Your task to perform on an android device: Go to accessibility settings Image 0: 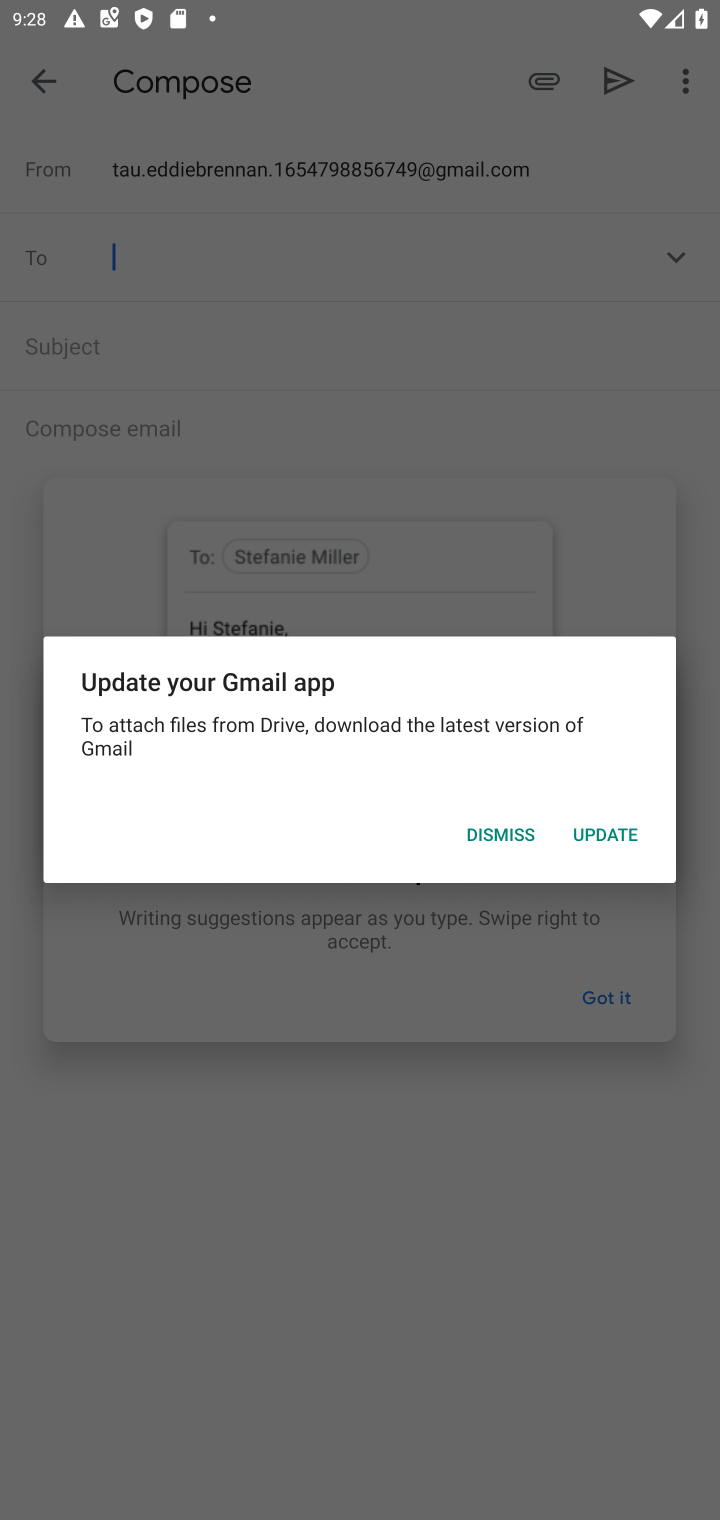
Step 0: press home button
Your task to perform on an android device: Go to accessibility settings Image 1: 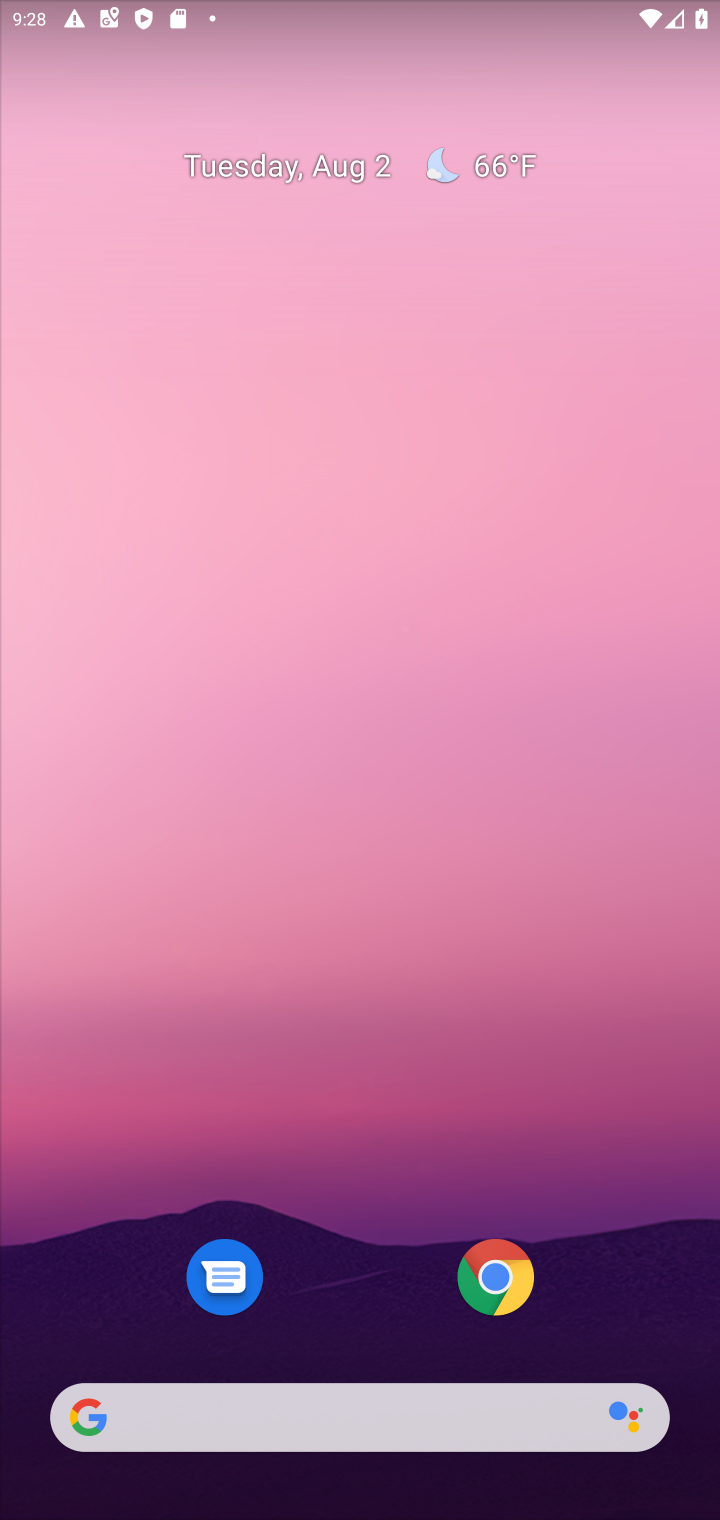
Step 1: drag from (330, 1026) to (596, 762)
Your task to perform on an android device: Go to accessibility settings Image 2: 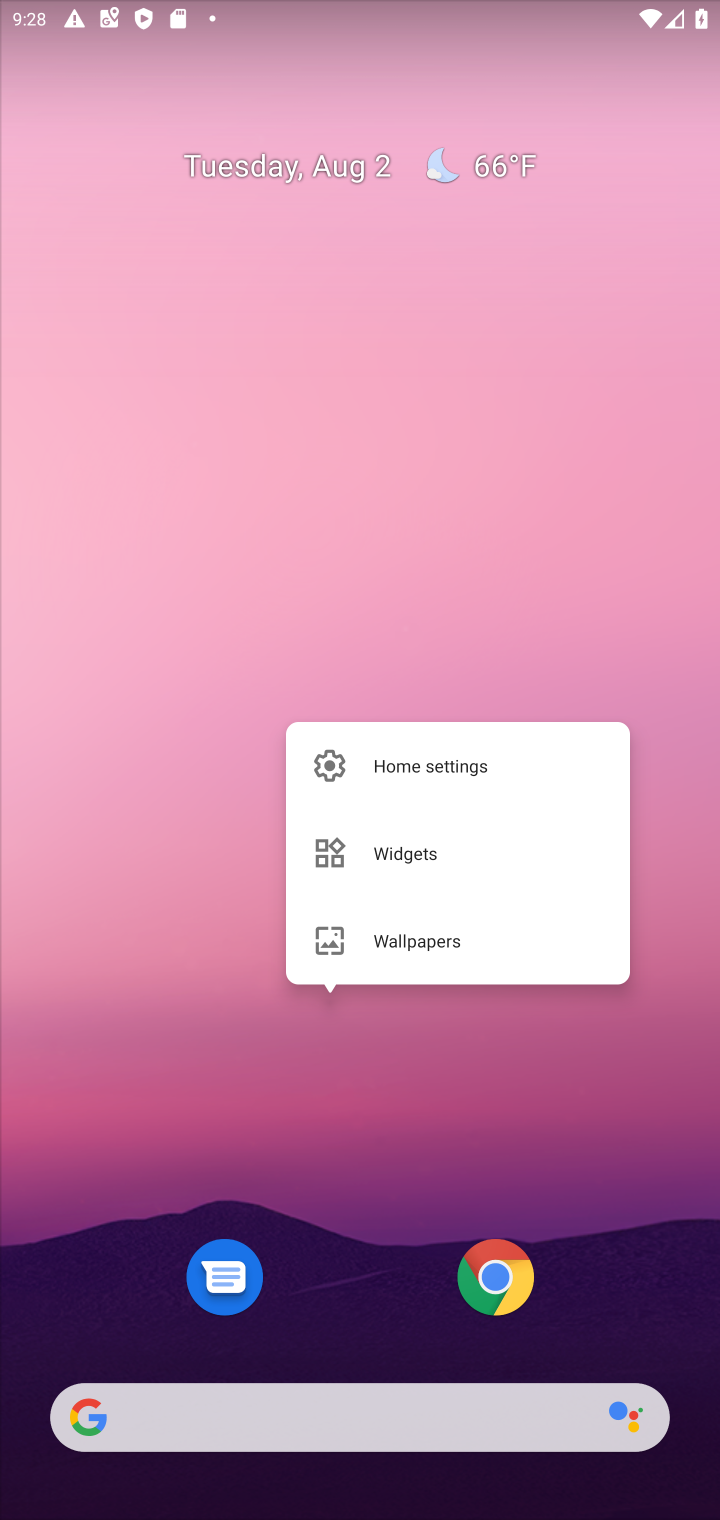
Step 2: click (387, 481)
Your task to perform on an android device: Go to accessibility settings Image 3: 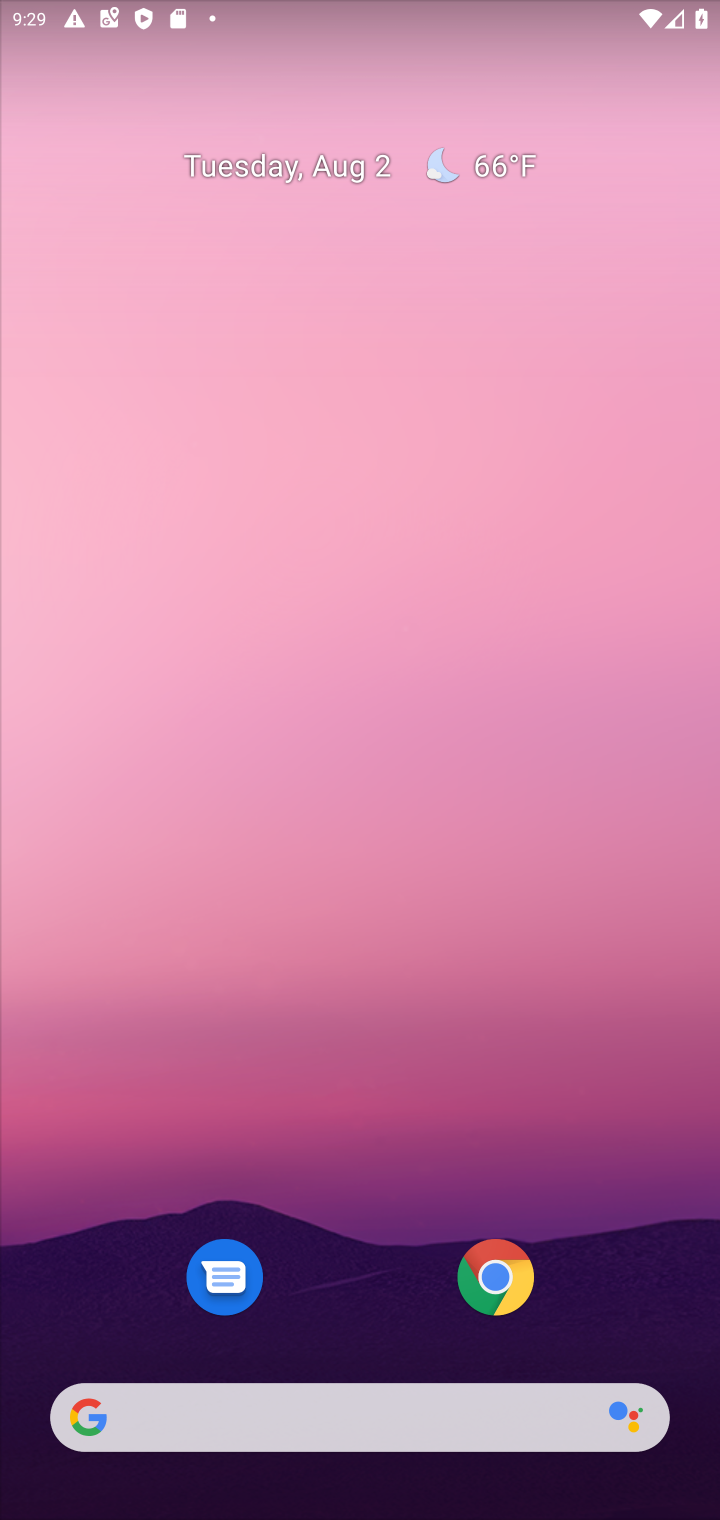
Step 3: drag from (417, 1061) to (441, 582)
Your task to perform on an android device: Go to accessibility settings Image 4: 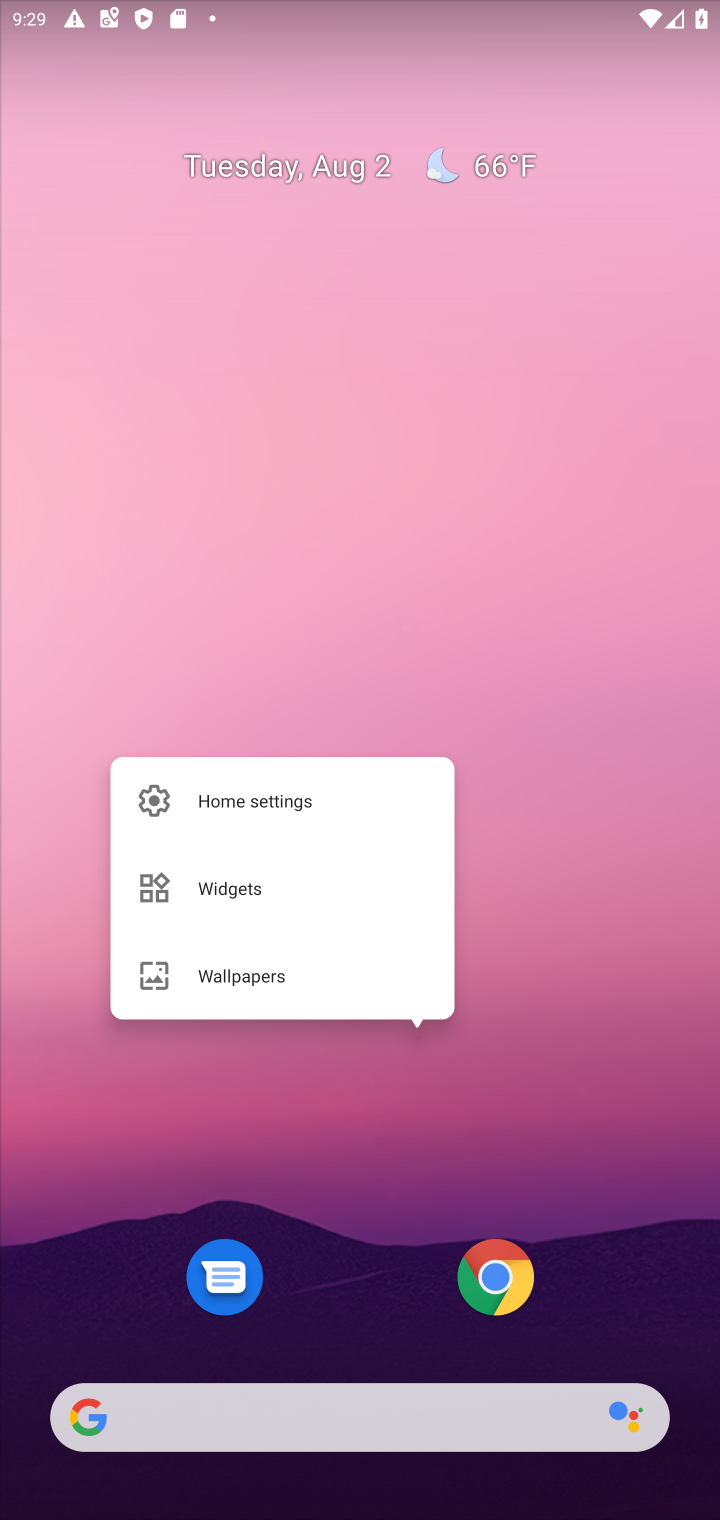
Step 4: click (441, 582)
Your task to perform on an android device: Go to accessibility settings Image 5: 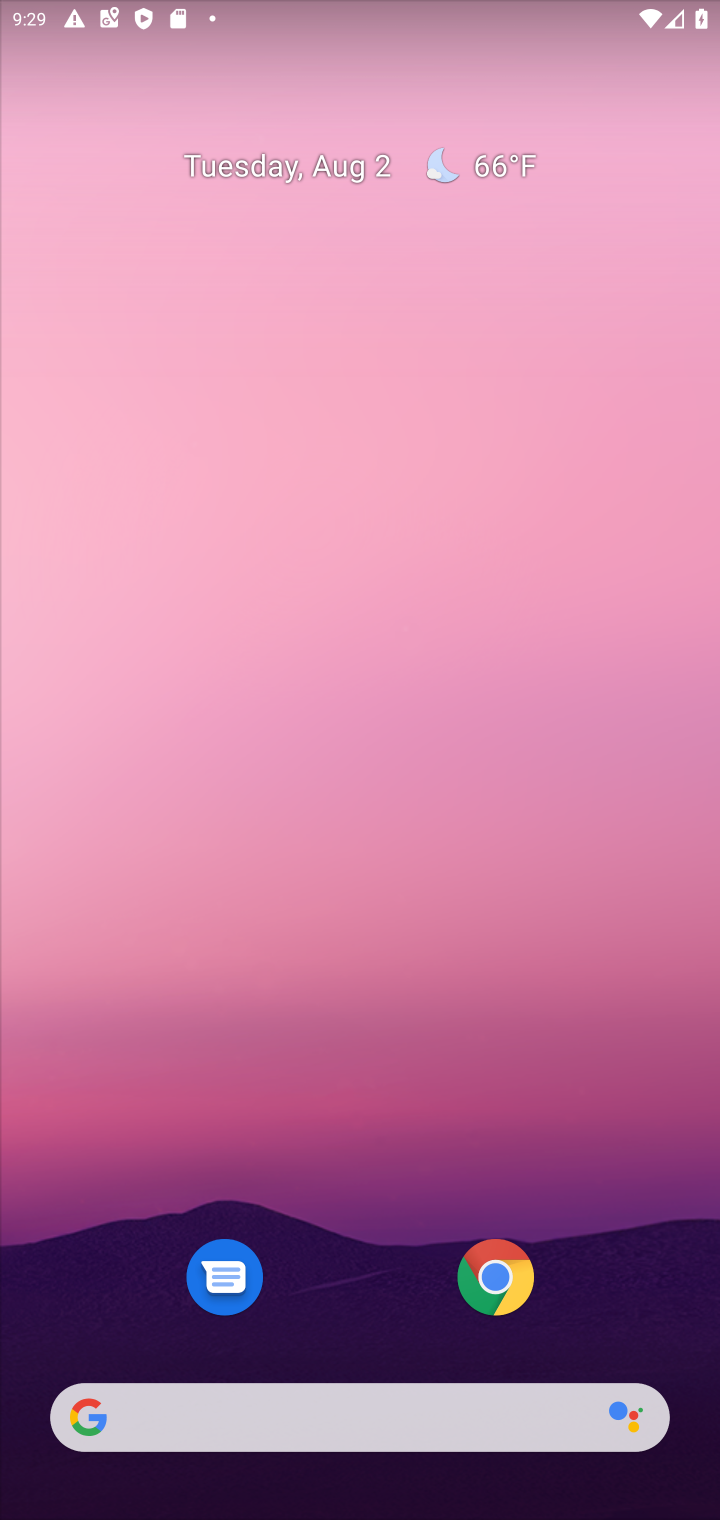
Step 5: drag from (495, 1129) to (521, 408)
Your task to perform on an android device: Go to accessibility settings Image 6: 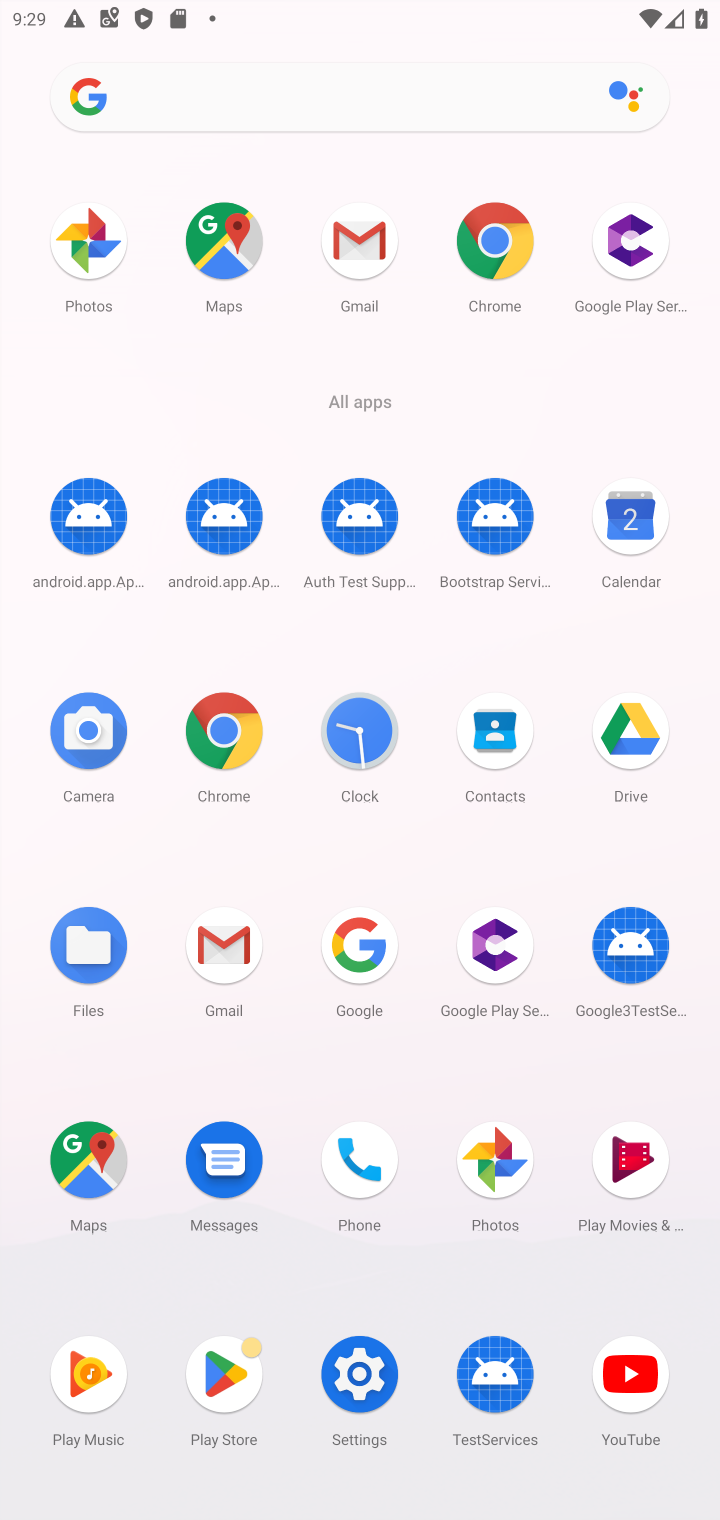
Step 6: click (363, 1373)
Your task to perform on an android device: Go to accessibility settings Image 7: 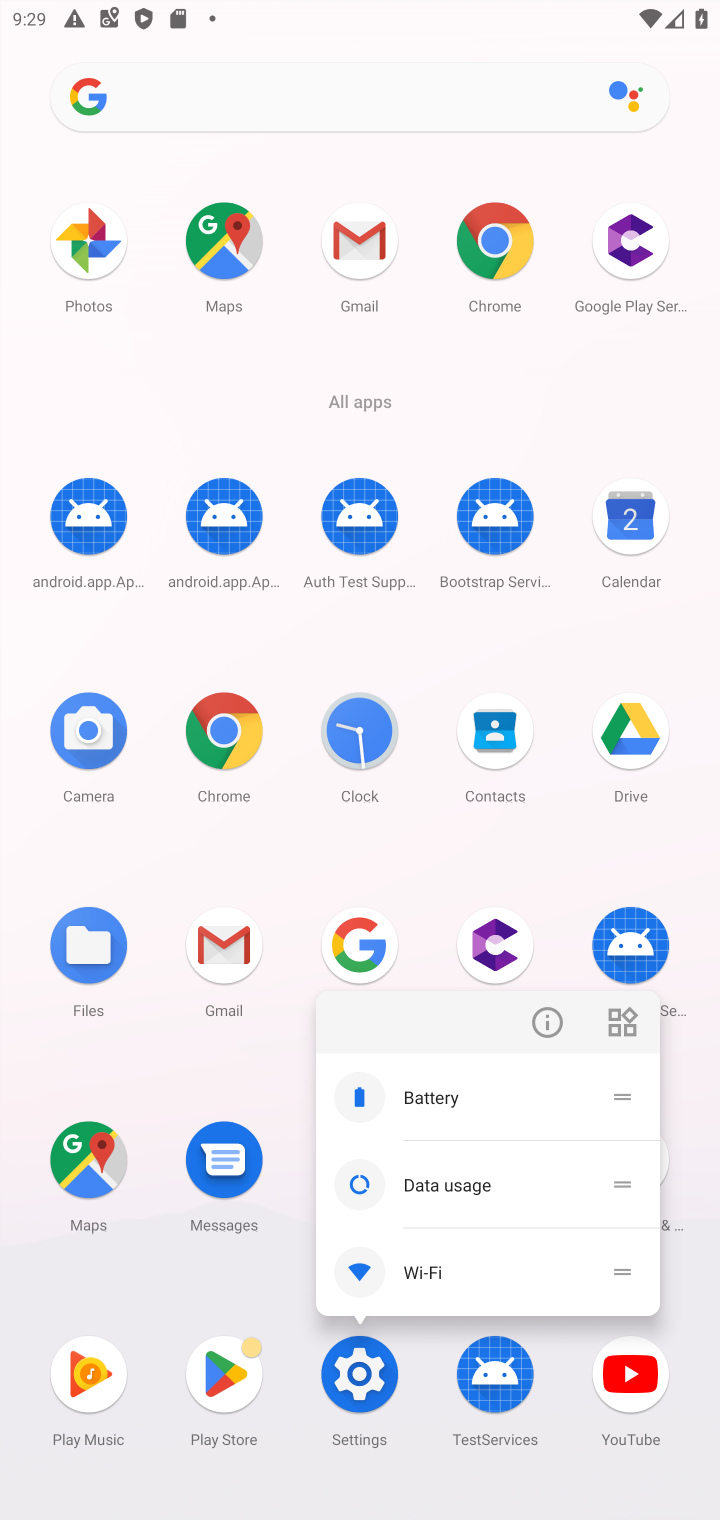
Step 7: click (363, 1373)
Your task to perform on an android device: Go to accessibility settings Image 8: 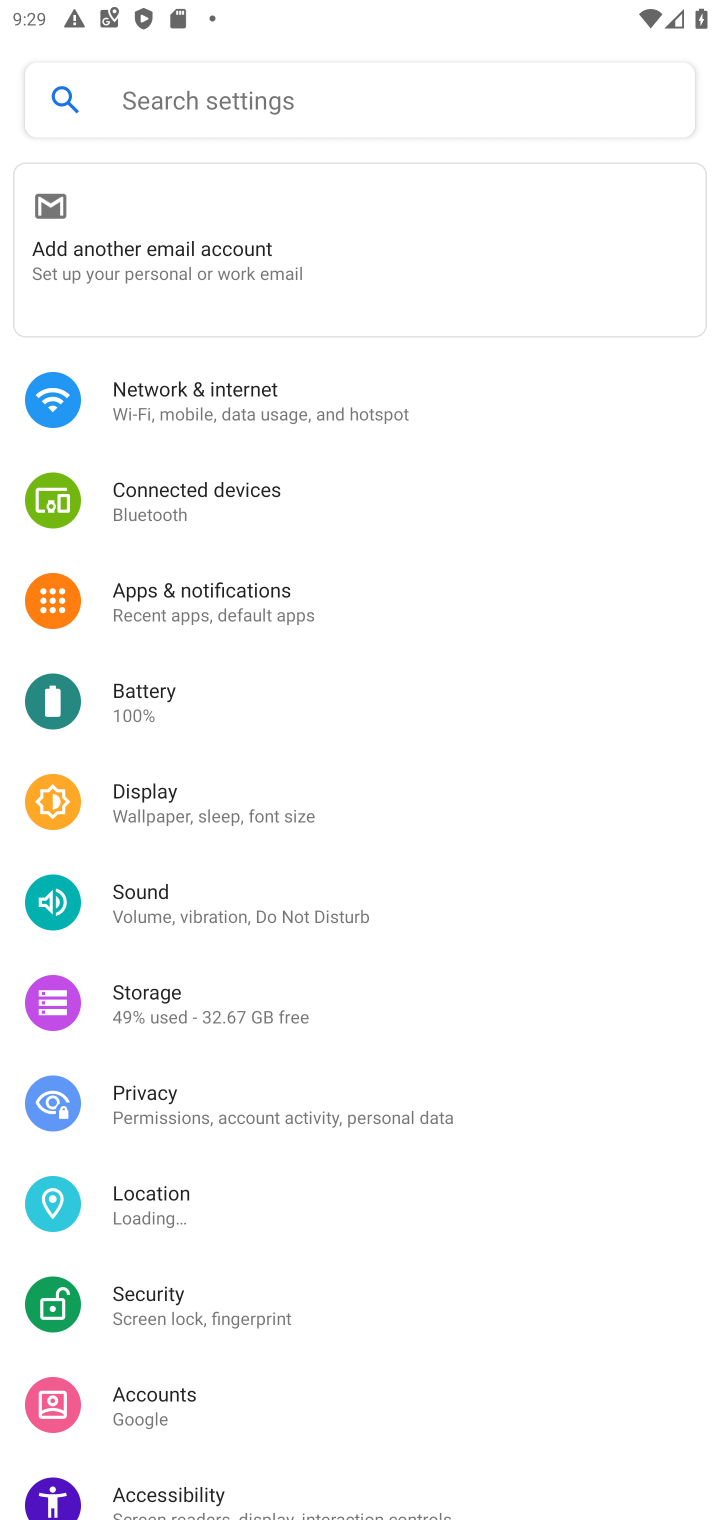
Step 8: click (195, 1494)
Your task to perform on an android device: Go to accessibility settings Image 9: 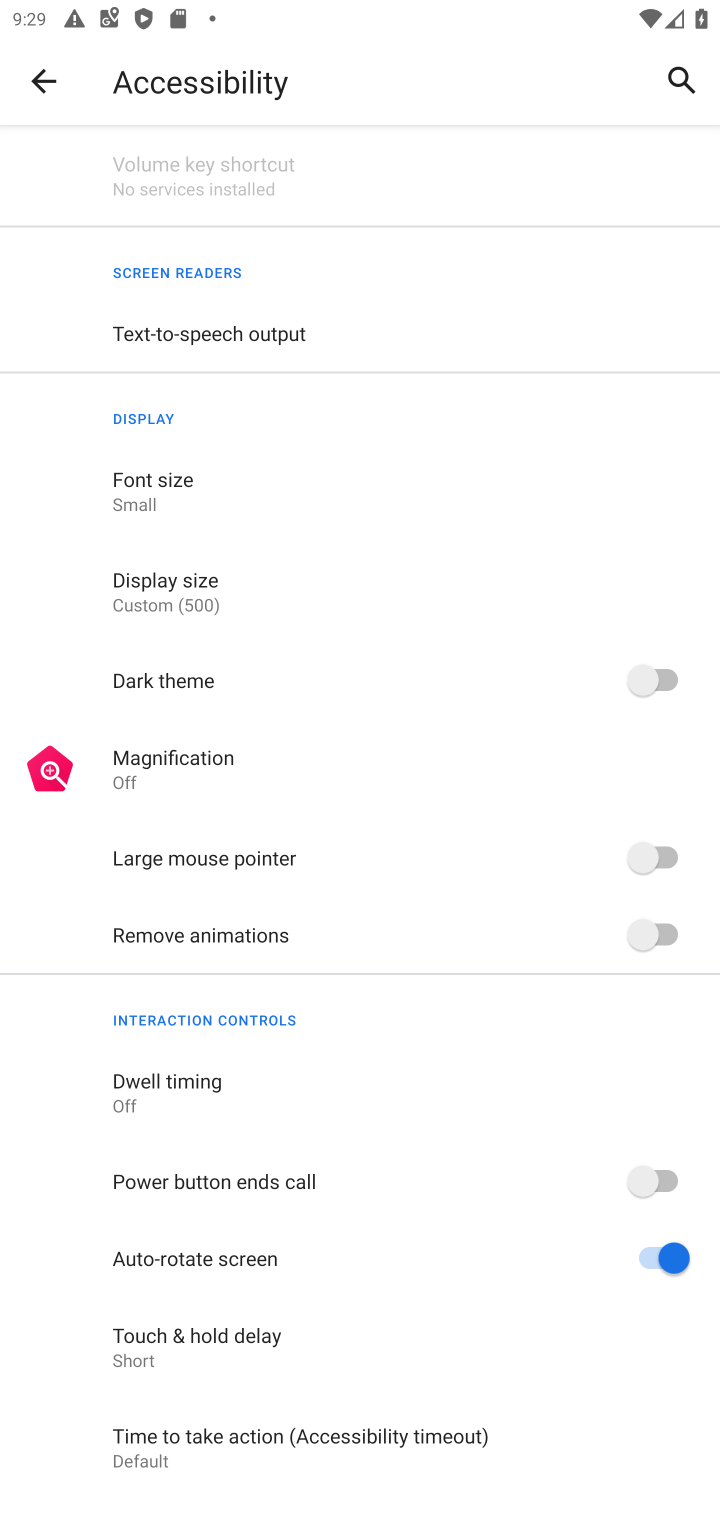
Step 9: task complete